Your task to perform on an android device: turn on showing notifications on the lock screen Image 0: 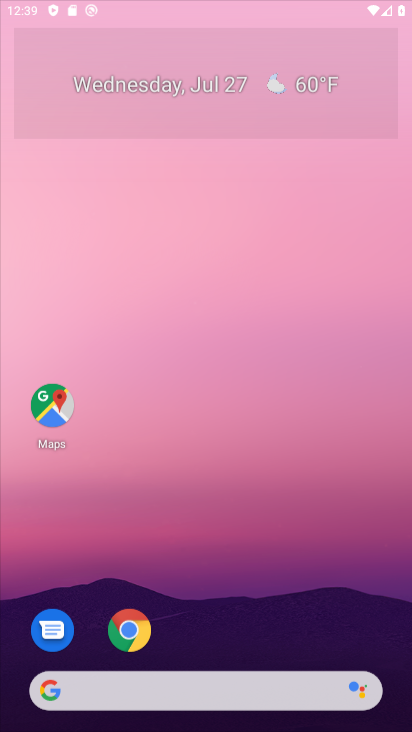
Step 0: press home button
Your task to perform on an android device: turn on showing notifications on the lock screen Image 1: 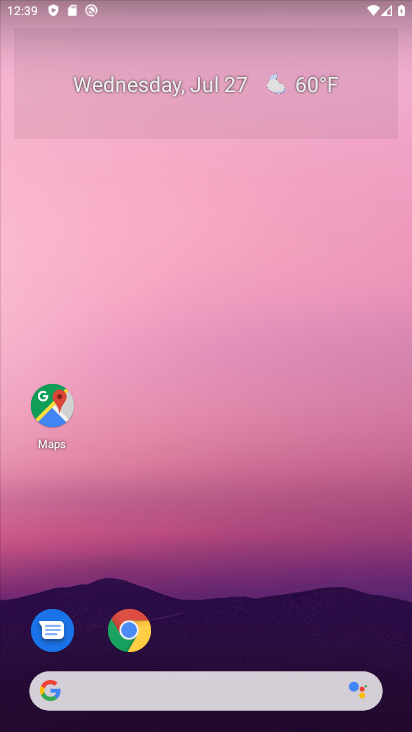
Step 1: drag from (212, 611) to (241, 135)
Your task to perform on an android device: turn on showing notifications on the lock screen Image 2: 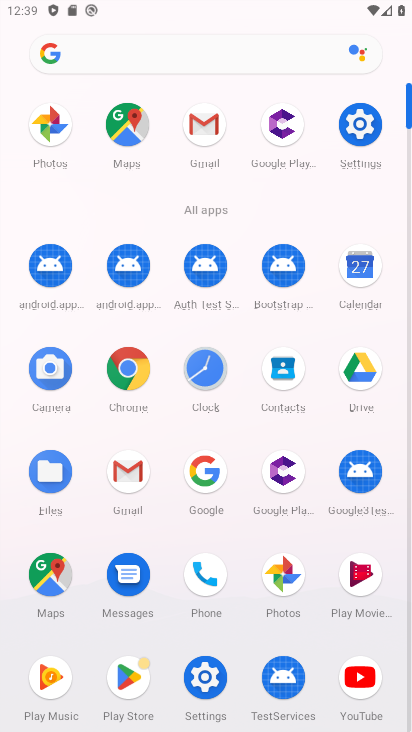
Step 2: click (206, 684)
Your task to perform on an android device: turn on showing notifications on the lock screen Image 3: 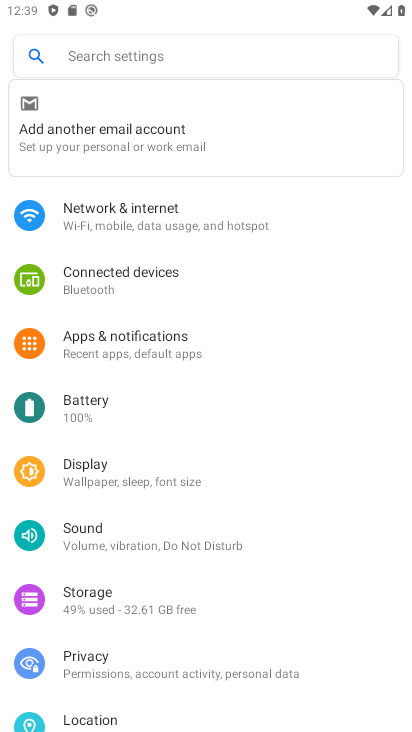
Step 3: click (149, 342)
Your task to perform on an android device: turn on showing notifications on the lock screen Image 4: 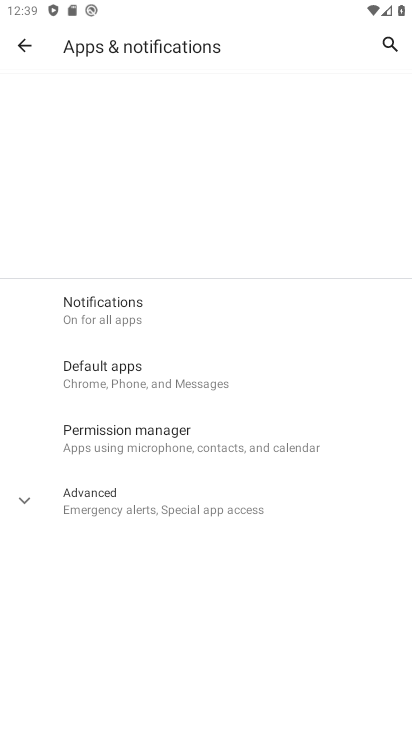
Step 4: click (106, 315)
Your task to perform on an android device: turn on showing notifications on the lock screen Image 5: 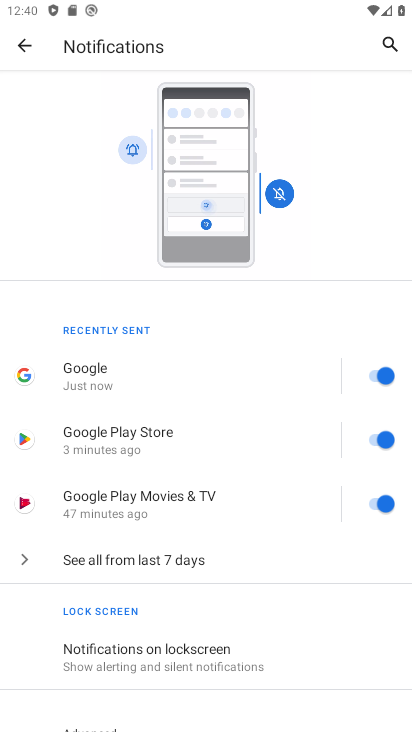
Step 5: click (206, 657)
Your task to perform on an android device: turn on showing notifications on the lock screen Image 6: 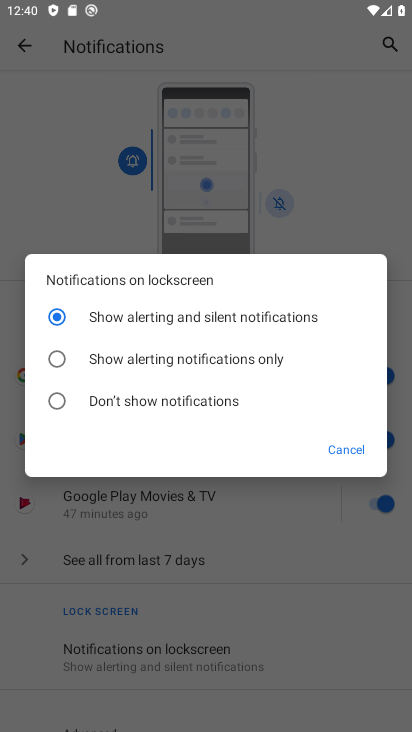
Step 6: task complete